Your task to perform on an android device: Turn off the flashlight Image 0: 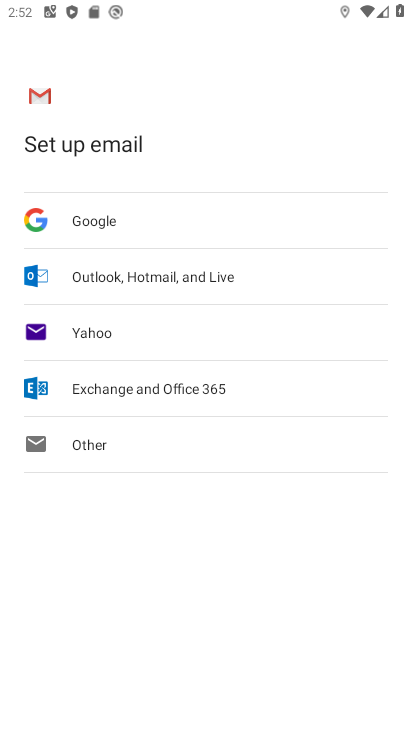
Step 0: press home button
Your task to perform on an android device: Turn off the flashlight Image 1: 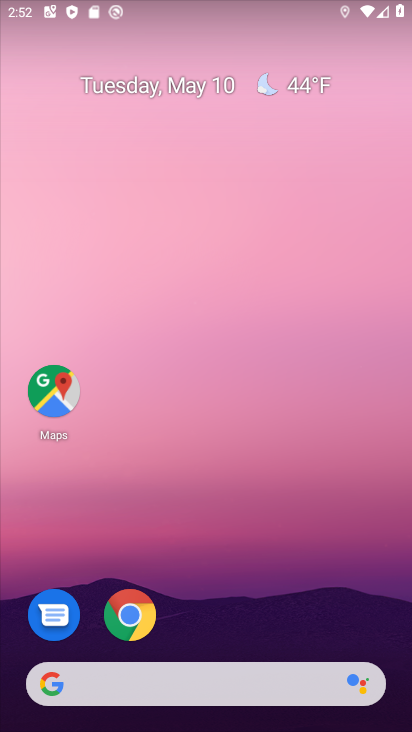
Step 1: drag from (232, 724) to (228, 276)
Your task to perform on an android device: Turn off the flashlight Image 2: 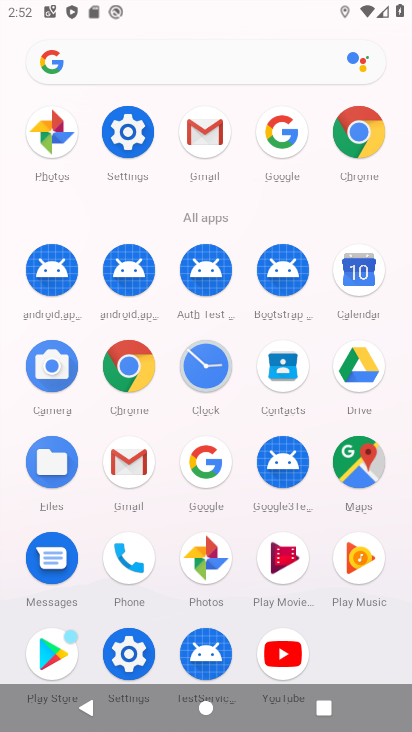
Step 2: click (120, 133)
Your task to perform on an android device: Turn off the flashlight Image 3: 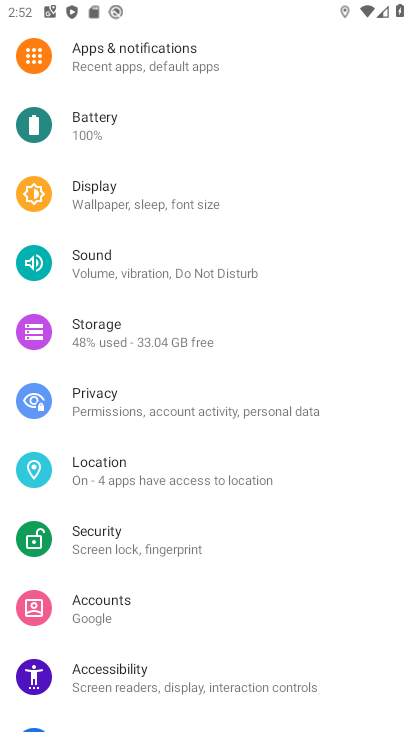
Step 3: task complete